Your task to perform on an android device: turn notification dots on Image 0: 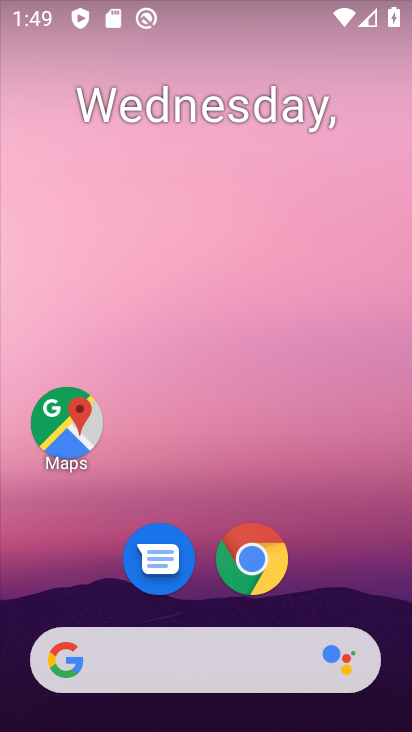
Step 0: drag from (207, 609) to (232, 28)
Your task to perform on an android device: turn notification dots on Image 1: 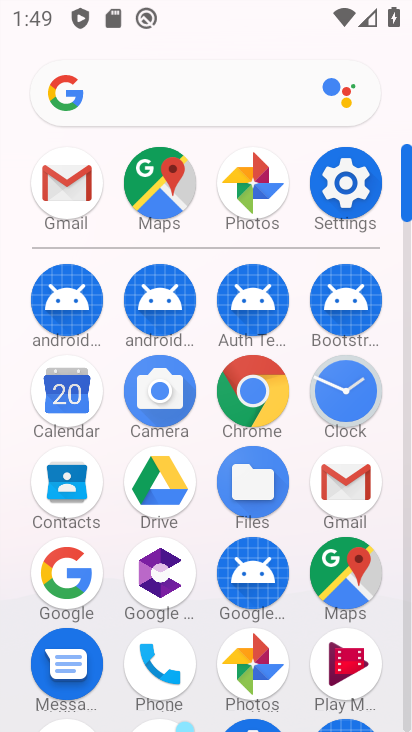
Step 1: click (350, 207)
Your task to perform on an android device: turn notification dots on Image 2: 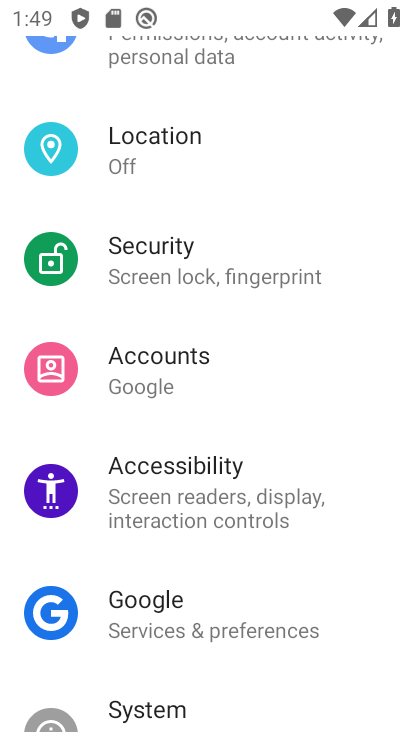
Step 2: drag from (241, 158) to (230, 587)
Your task to perform on an android device: turn notification dots on Image 3: 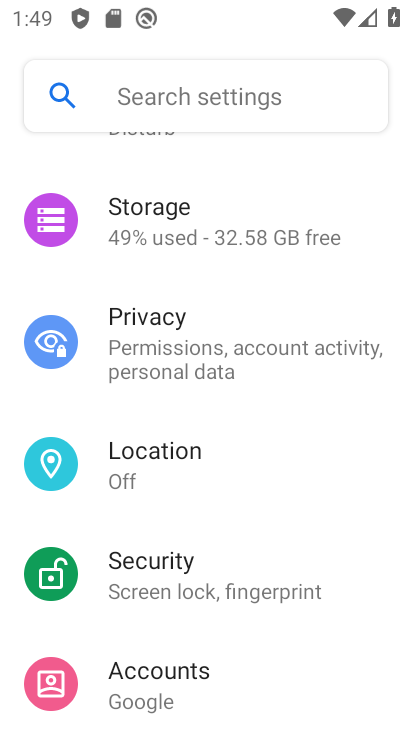
Step 3: drag from (232, 336) to (226, 561)
Your task to perform on an android device: turn notification dots on Image 4: 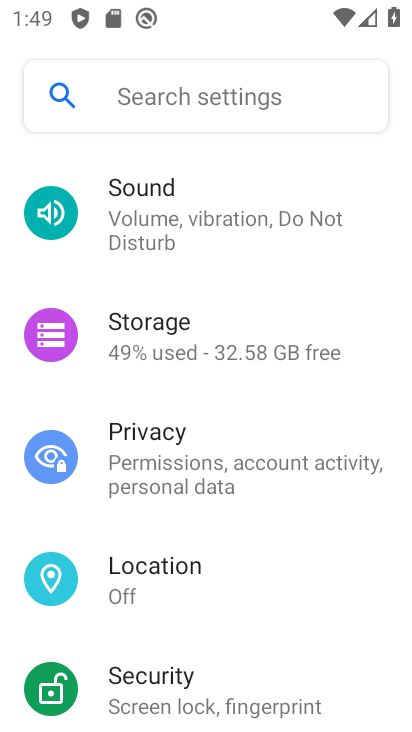
Step 4: drag from (236, 237) to (237, 627)
Your task to perform on an android device: turn notification dots on Image 5: 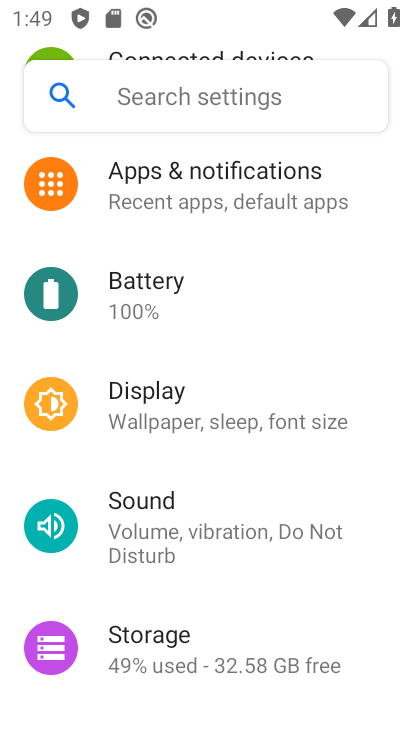
Step 5: click (221, 201)
Your task to perform on an android device: turn notification dots on Image 6: 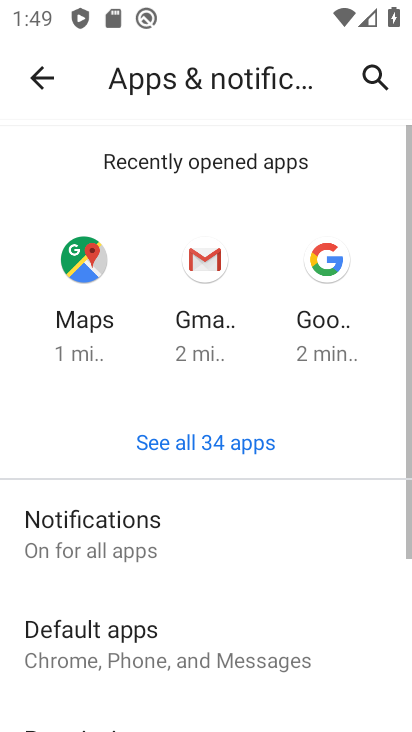
Step 6: drag from (227, 605) to (242, 332)
Your task to perform on an android device: turn notification dots on Image 7: 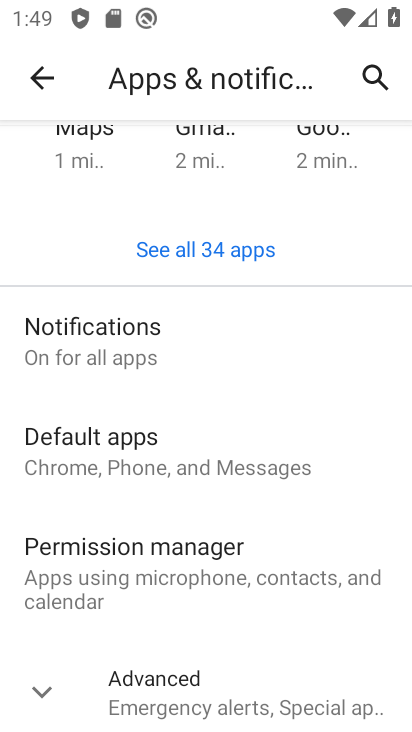
Step 7: click (178, 347)
Your task to perform on an android device: turn notification dots on Image 8: 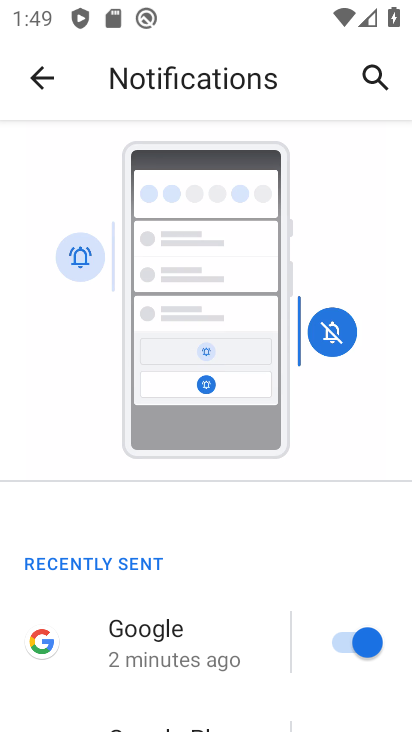
Step 8: drag from (226, 657) to (306, 77)
Your task to perform on an android device: turn notification dots on Image 9: 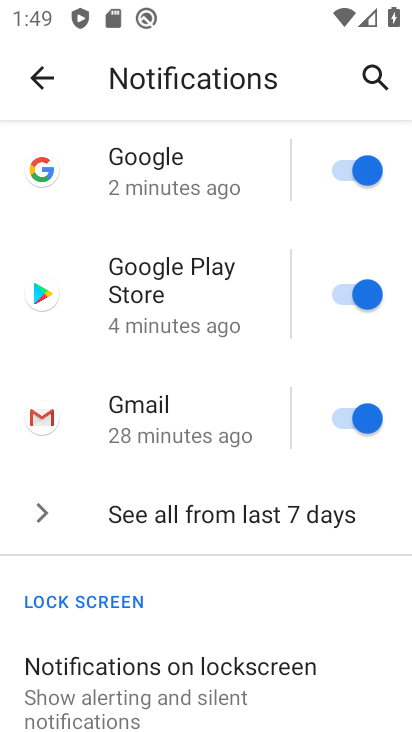
Step 9: drag from (215, 575) to (257, 202)
Your task to perform on an android device: turn notification dots on Image 10: 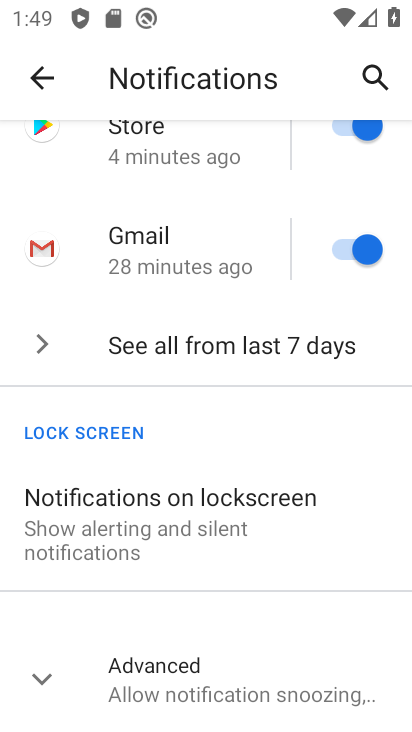
Step 10: drag from (213, 400) to (222, 273)
Your task to perform on an android device: turn notification dots on Image 11: 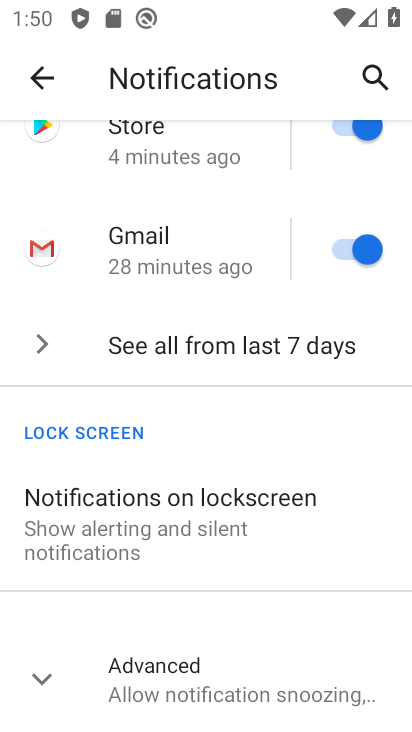
Step 11: click (173, 666)
Your task to perform on an android device: turn notification dots on Image 12: 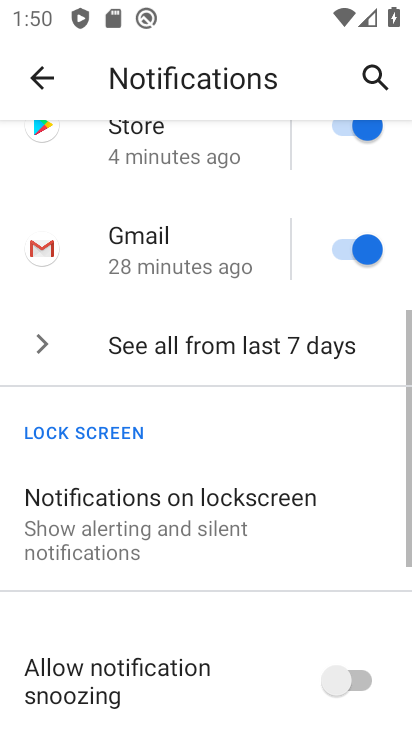
Step 12: task complete